Your task to perform on an android device: turn off javascript in the chrome app Image 0: 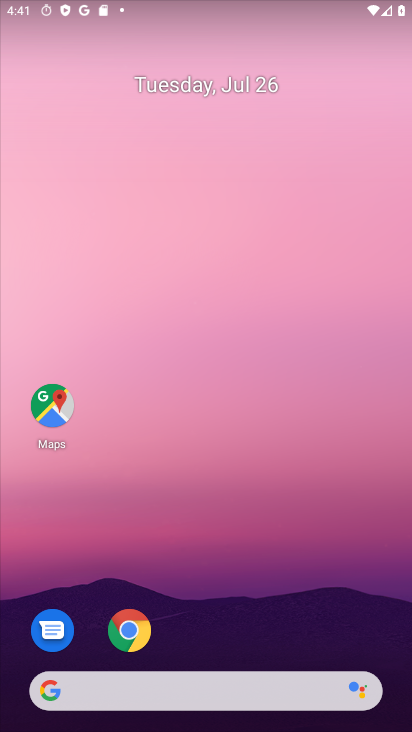
Step 0: drag from (336, 577) to (297, 81)
Your task to perform on an android device: turn off javascript in the chrome app Image 1: 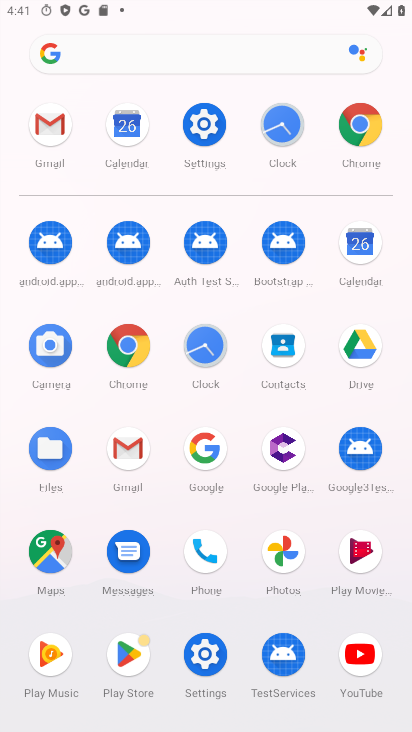
Step 1: click (360, 121)
Your task to perform on an android device: turn off javascript in the chrome app Image 2: 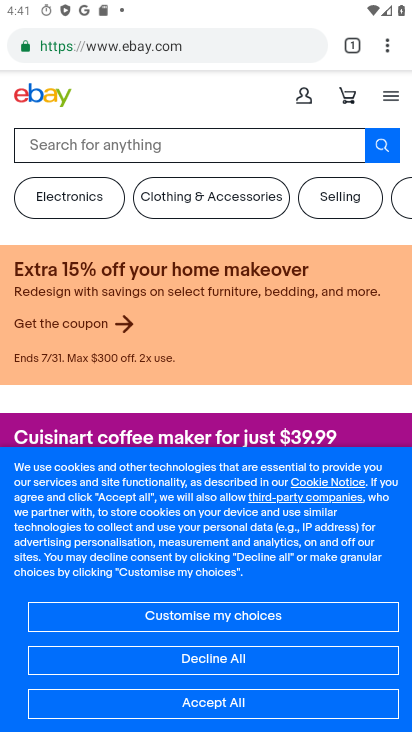
Step 2: drag from (385, 49) to (244, 545)
Your task to perform on an android device: turn off javascript in the chrome app Image 3: 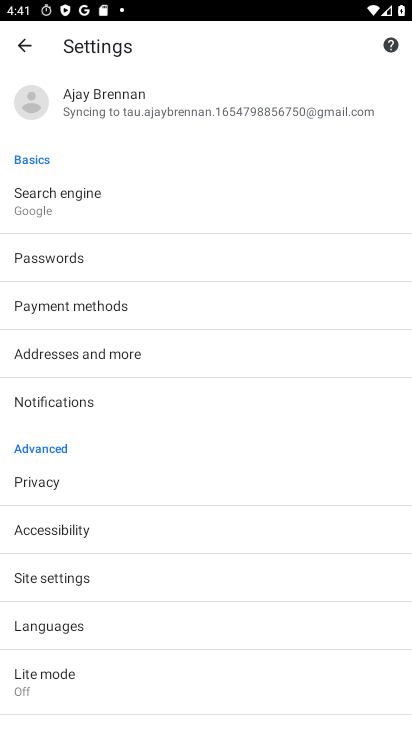
Step 3: click (72, 576)
Your task to perform on an android device: turn off javascript in the chrome app Image 4: 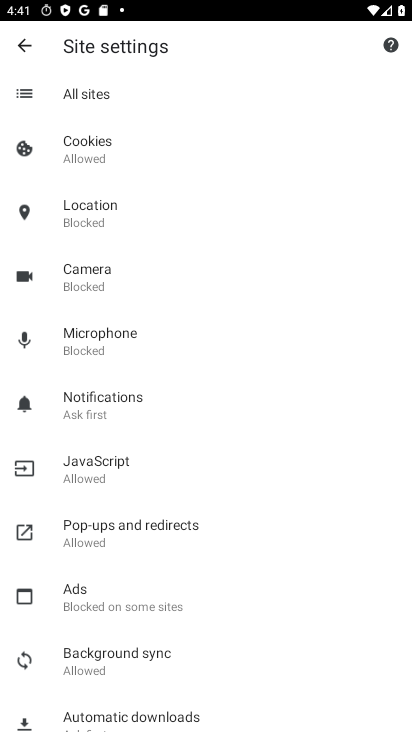
Step 4: click (93, 472)
Your task to perform on an android device: turn off javascript in the chrome app Image 5: 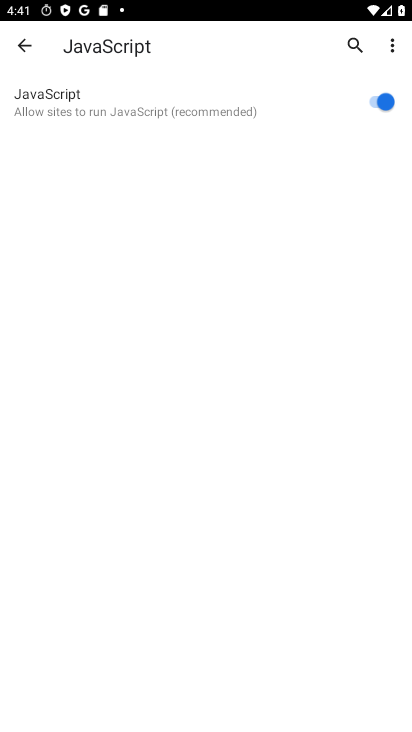
Step 5: click (388, 94)
Your task to perform on an android device: turn off javascript in the chrome app Image 6: 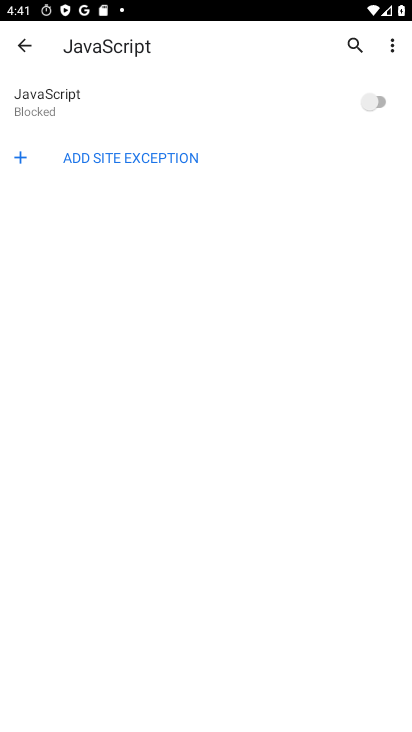
Step 6: task complete